Your task to perform on an android device: empty trash in google photos Image 0: 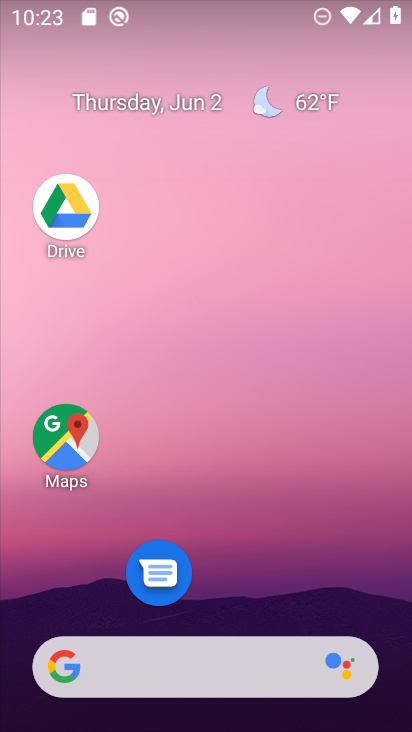
Step 0: drag from (228, 621) to (193, 102)
Your task to perform on an android device: empty trash in google photos Image 1: 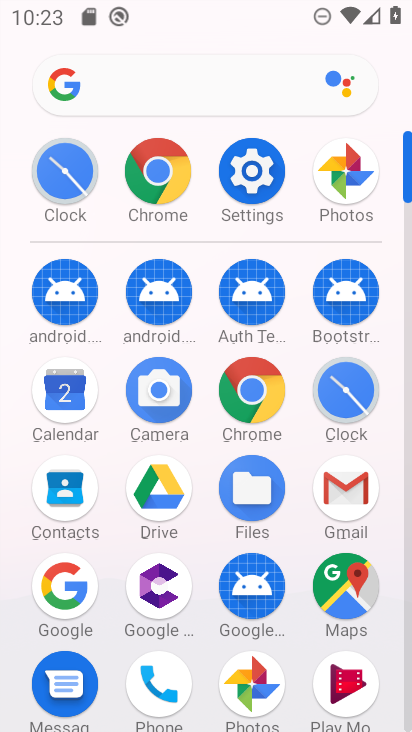
Step 1: click (228, 674)
Your task to perform on an android device: empty trash in google photos Image 2: 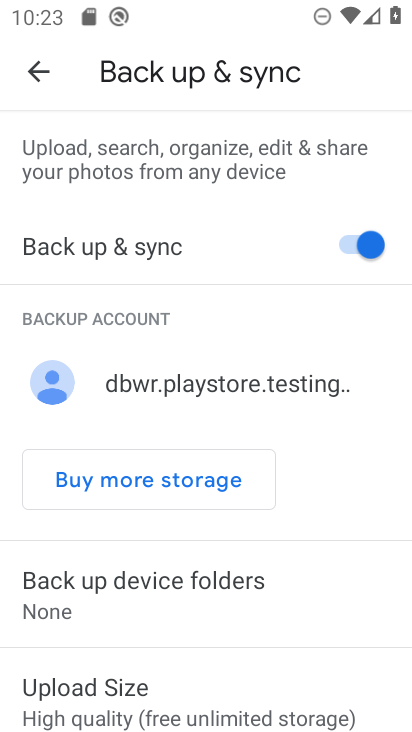
Step 2: click (33, 57)
Your task to perform on an android device: empty trash in google photos Image 3: 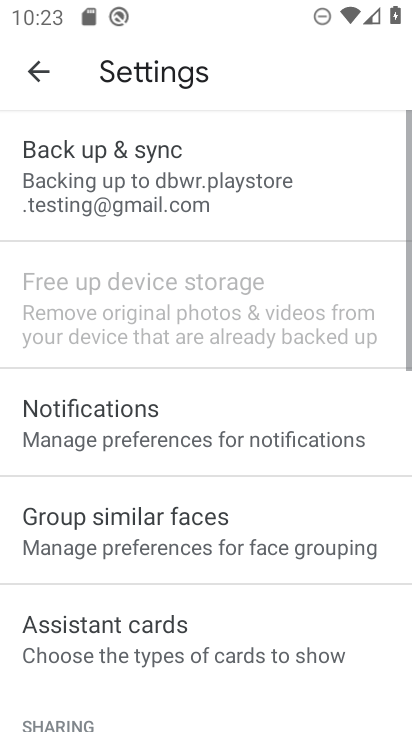
Step 3: click (33, 59)
Your task to perform on an android device: empty trash in google photos Image 4: 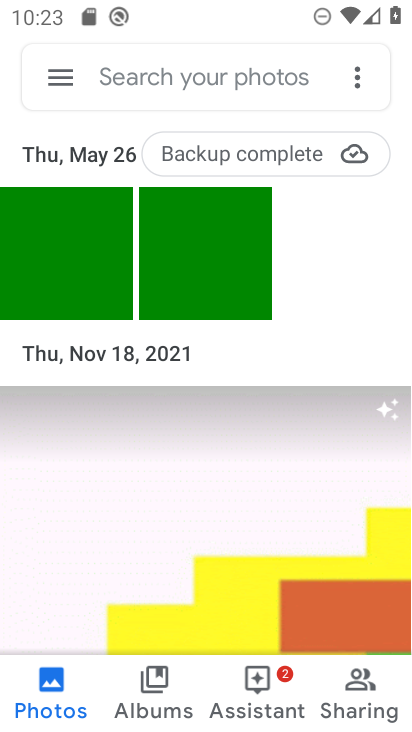
Step 4: click (54, 68)
Your task to perform on an android device: empty trash in google photos Image 5: 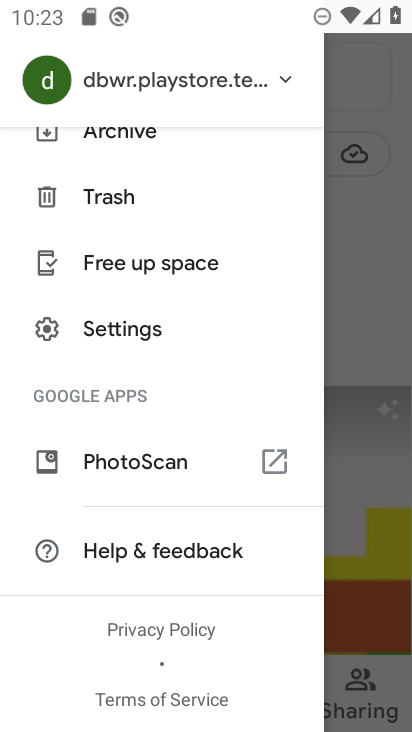
Step 5: click (75, 197)
Your task to perform on an android device: empty trash in google photos Image 6: 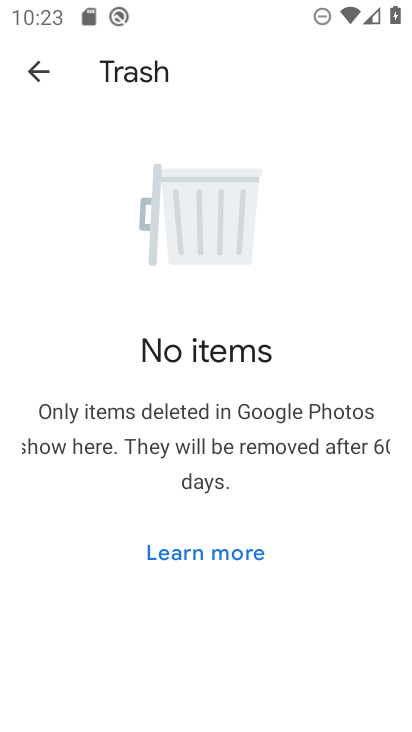
Step 6: task complete